Your task to perform on an android device: turn smart compose on in the gmail app Image 0: 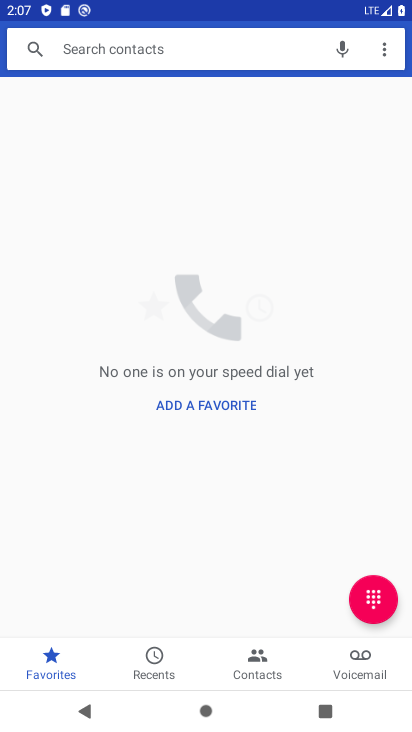
Step 0: press home button
Your task to perform on an android device: turn smart compose on in the gmail app Image 1: 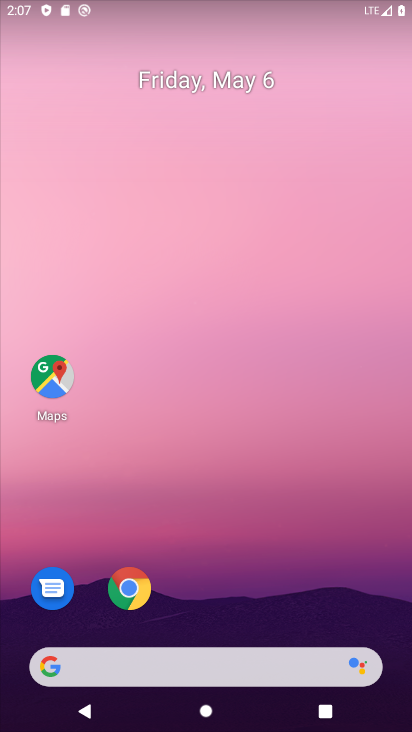
Step 1: drag from (384, 587) to (311, 209)
Your task to perform on an android device: turn smart compose on in the gmail app Image 2: 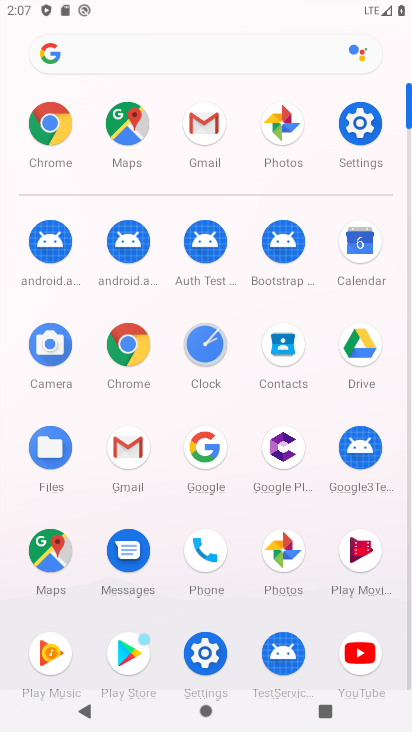
Step 2: click (128, 464)
Your task to perform on an android device: turn smart compose on in the gmail app Image 3: 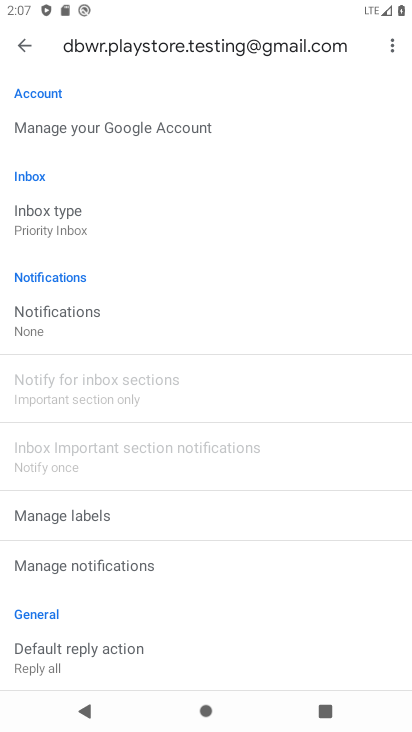
Step 3: task complete